Your task to perform on an android device: Find coffee shops on Maps Image 0: 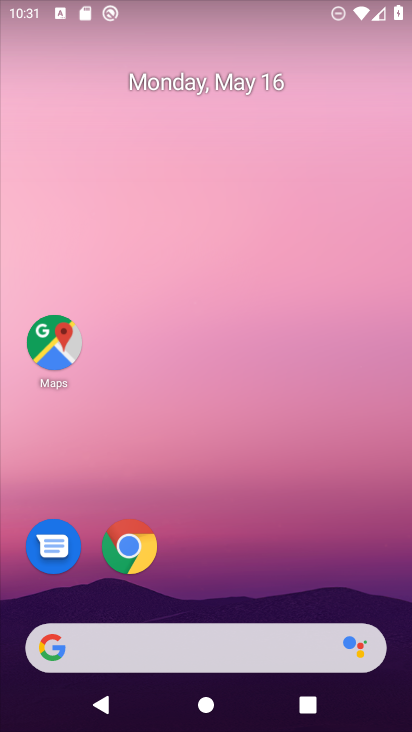
Step 0: click (54, 314)
Your task to perform on an android device: Find coffee shops on Maps Image 1: 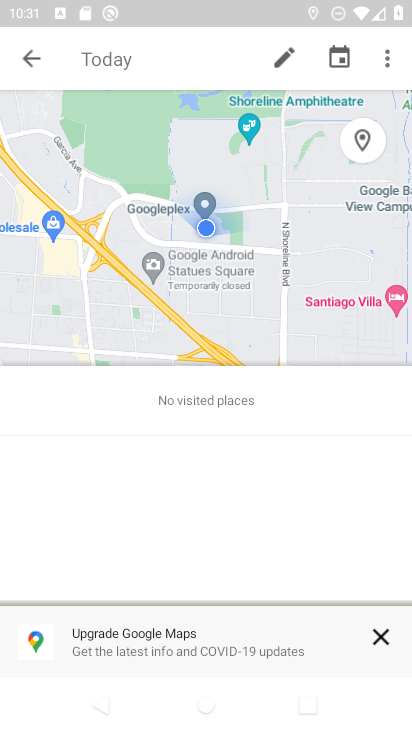
Step 1: click (39, 62)
Your task to perform on an android device: Find coffee shops on Maps Image 2: 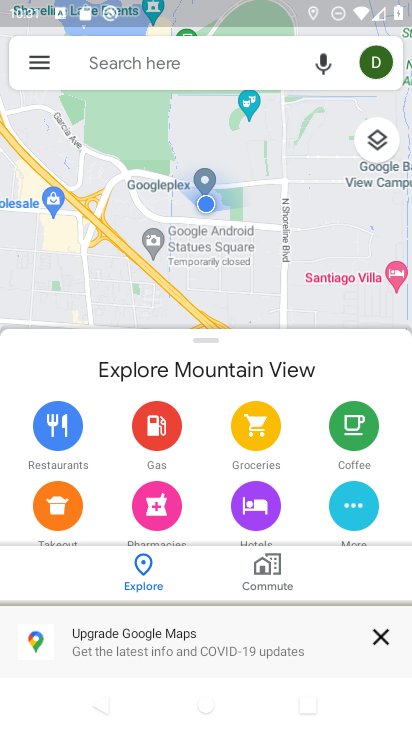
Step 2: click (131, 74)
Your task to perform on an android device: Find coffee shops on Maps Image 3: 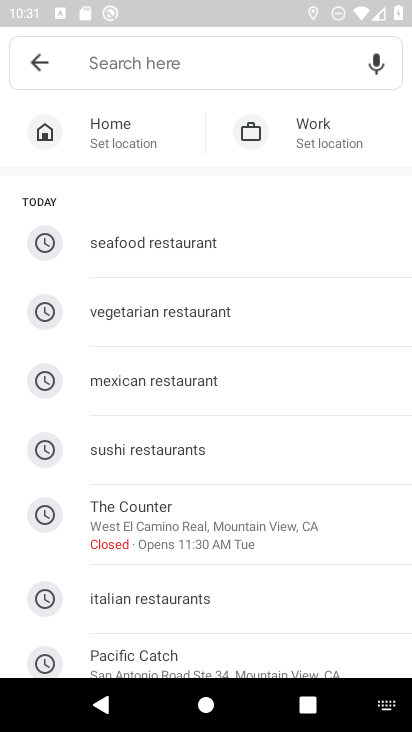
Step 3: drag from (162, 565) to (225, 161)
Your task to perform on an android device: Find coffee shops on Maps Image 4: 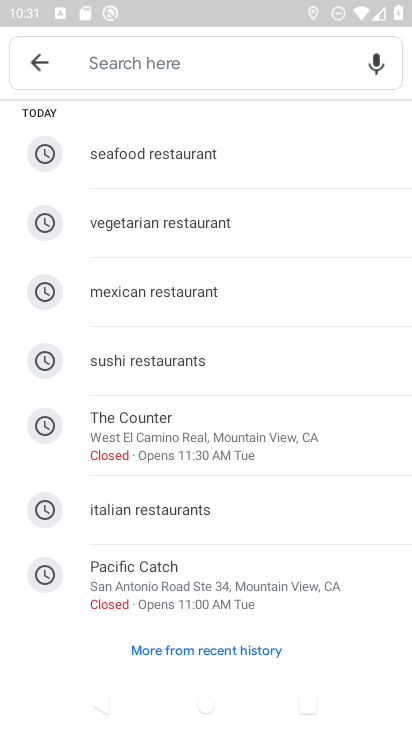
Step 4: drag from (217, 322) to (199, 667)
Your task to perform on an android device: Find coffee shops on Maps Image 5: 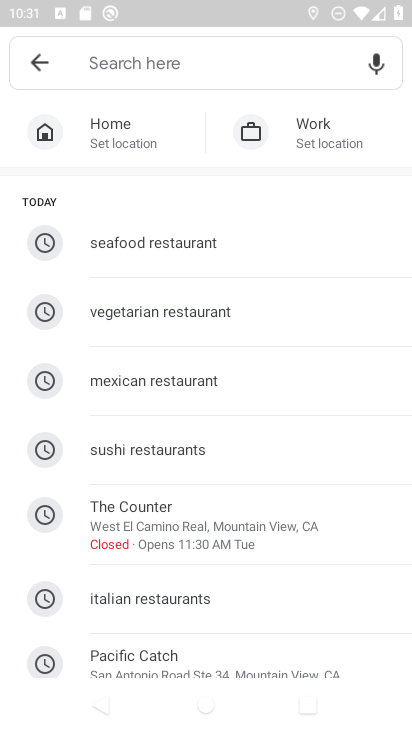
Step 5: click (214, 67)
Your task to perform on an android device: Find coffee shops on Maps Image 6: 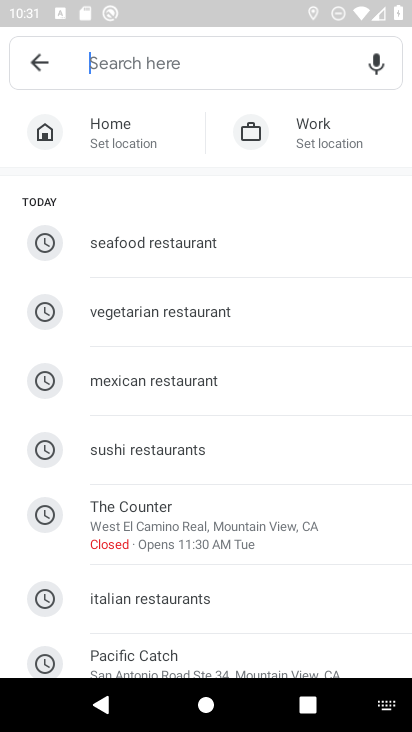
Step 6: type "coffee"
Your task to perform on an android device: Find coffee shops on Maps Image 7: 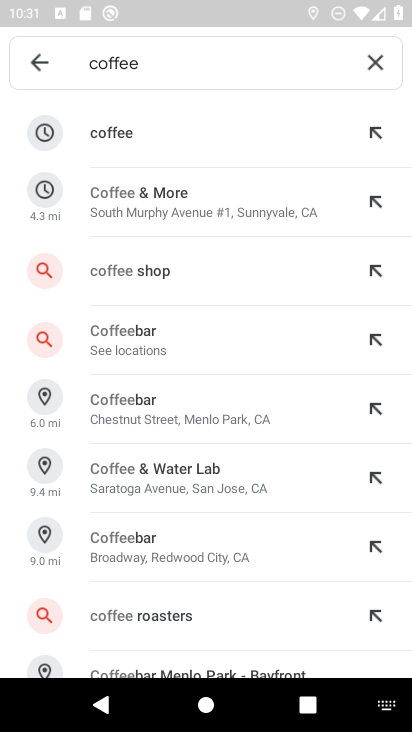
Step 7: click (183, 260)
Your task to perform on an android device: Find coffee shops on Maps Image 8: 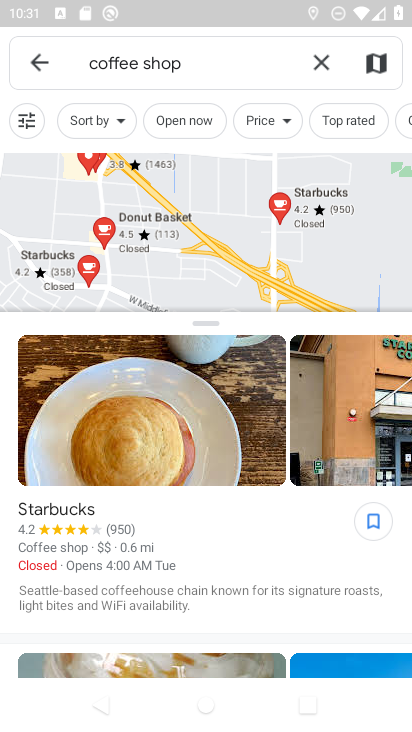
Step 8: task complete